Your task to perform on an android device: turn on javascript in the chrome app Image 0: 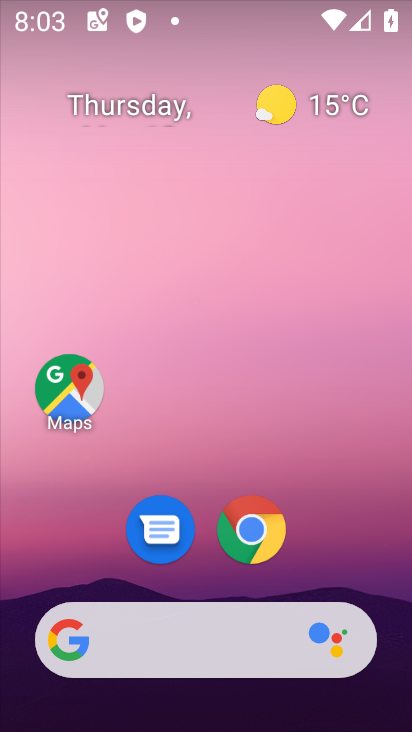
Step 0: click (262, 542)
Your task to perform on an android device: turn on javascript in the chrome app Image 1: 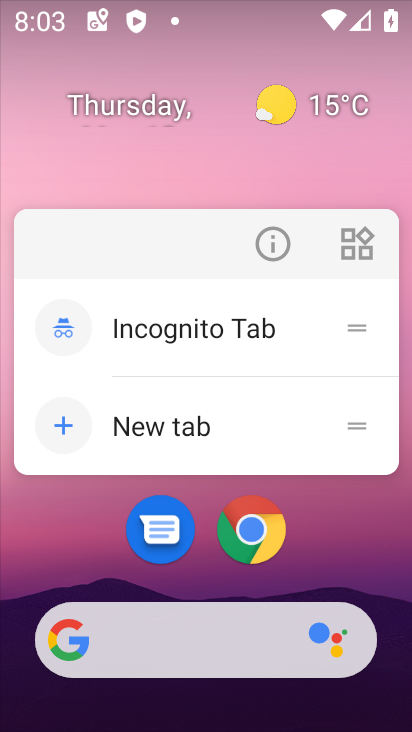
Step 1: click (343, 559)
Your task to perform on an android device: turn on javascript in the chrome app Image 2: 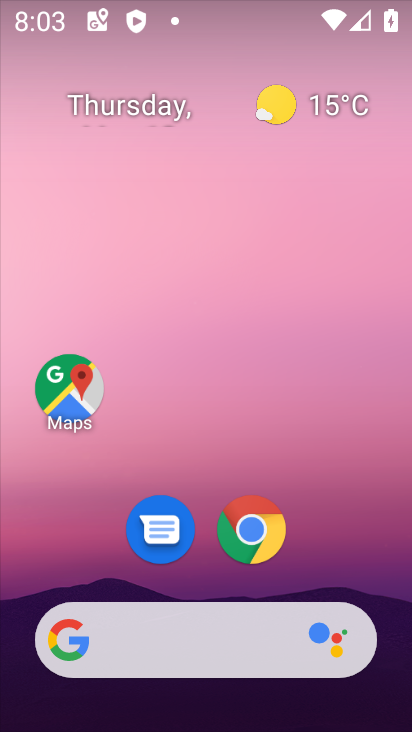
Step 2: click (273, 528)
Your task to perform on an android device: turn on javascript in the chrome app Image 3: 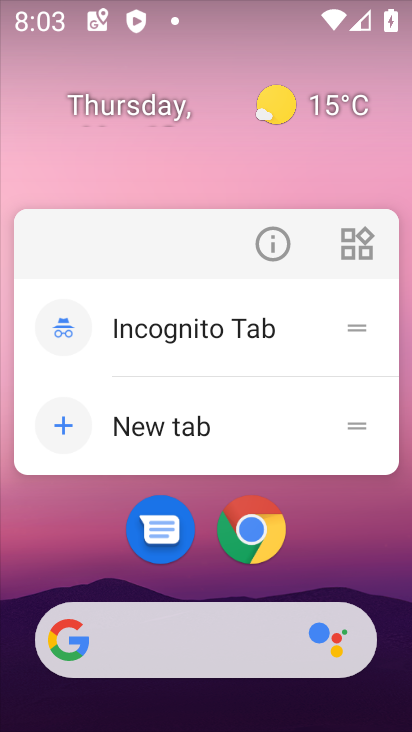
Step 3: click (252, 518)
Your task to perform on an android device: turn on javascript in the chrome app Image 4: 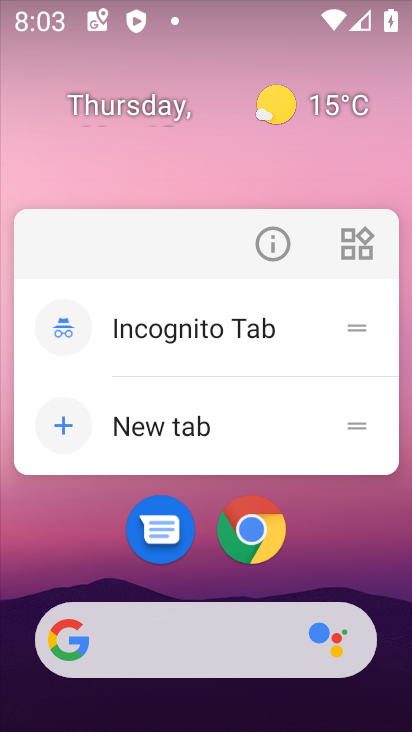
Step 4: click (252, 518)
Your task to perform on an android device: turn on javascript in the chrome app Image 5: 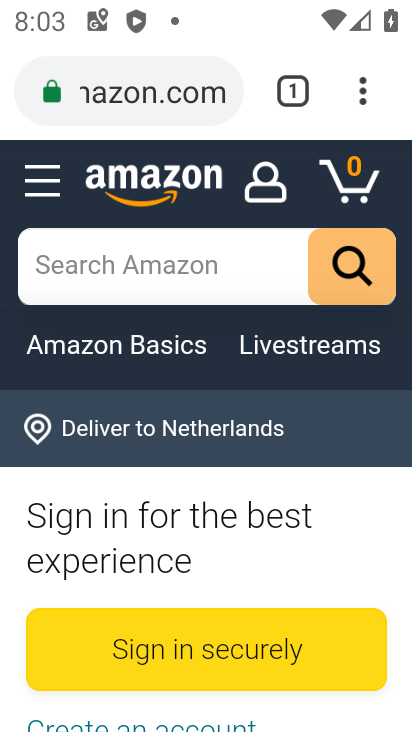
Step 5: click (361, 91)
Your task to perform on an android device: turn on javascript in the chrome app Image 6: 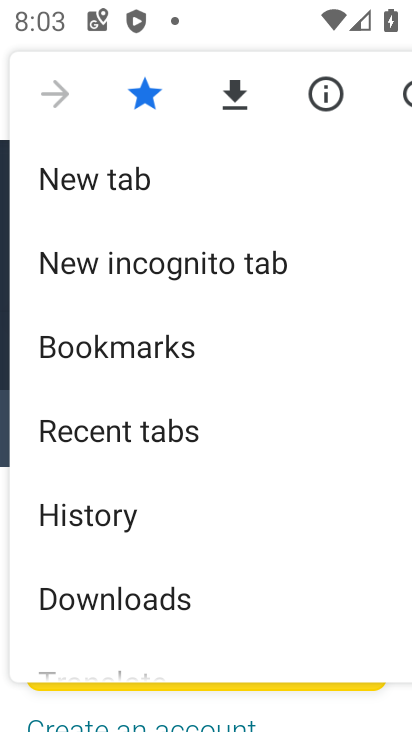
Step 6: drag from (214, 628) to (241, 62)
Your task to perform on an android device: turn on javascript in the chrome app Image 7: 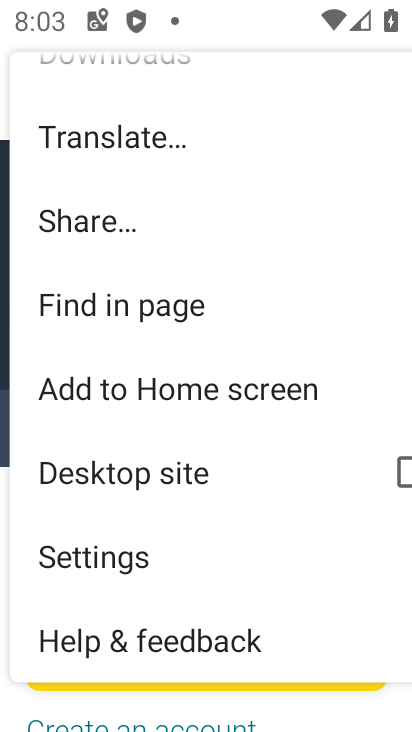
Step 7: click (129, 553)
Your task to perform on an android device: turn on javascript in the chrome app Image 8: 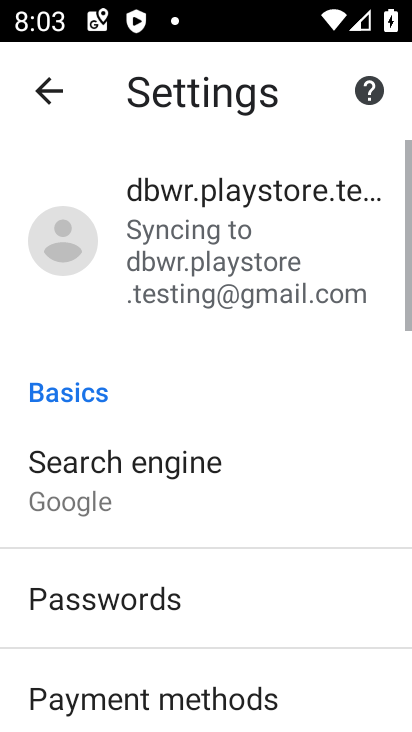
Step 8: drag from (165, 592) to (157, 3)
Your task to perform on an android device: turn on javascript in the chrome app Image 9: 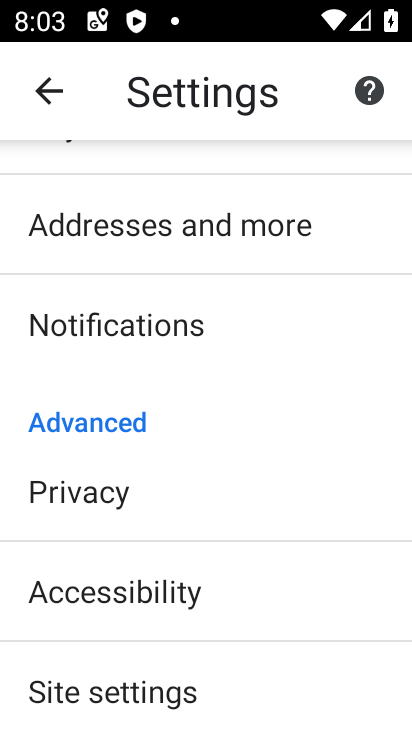
Step 9: click (143, 694)
Your task to perform on an android device: turn on javascript in the chrome app Image 10: 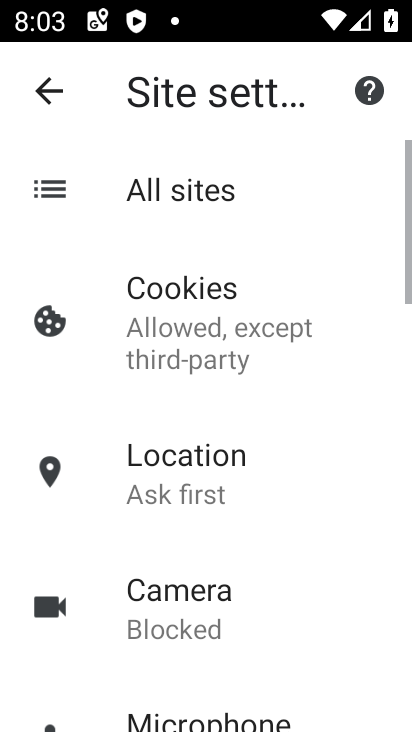
Step 10: drag from (245, 657) to (66, 6)
Your task to perform on an android device: turn on javascript in the chrome app Image 11: 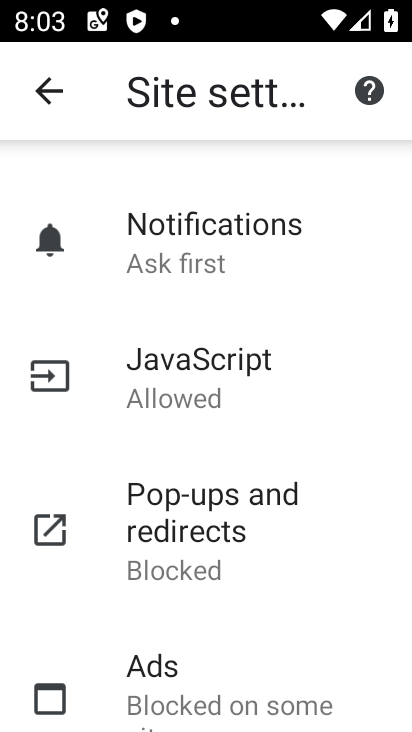
Step 11: click (220, 360)
Your task to perform on an android device: turn on javascript in the chrome app Image 12: 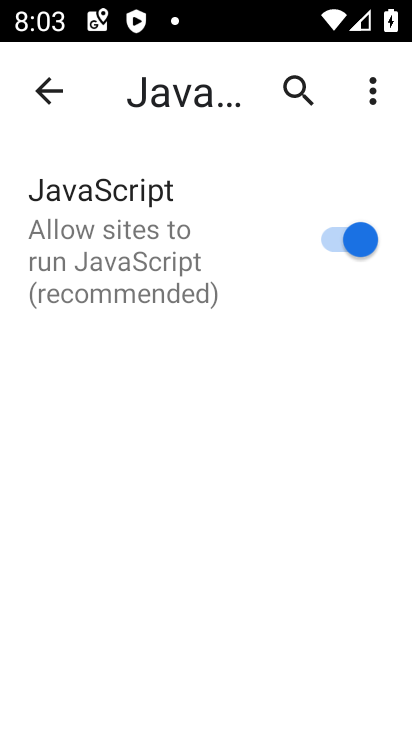
Step 12: task complete